Your task to perform on an android device: When is my next meeting? Image 0: 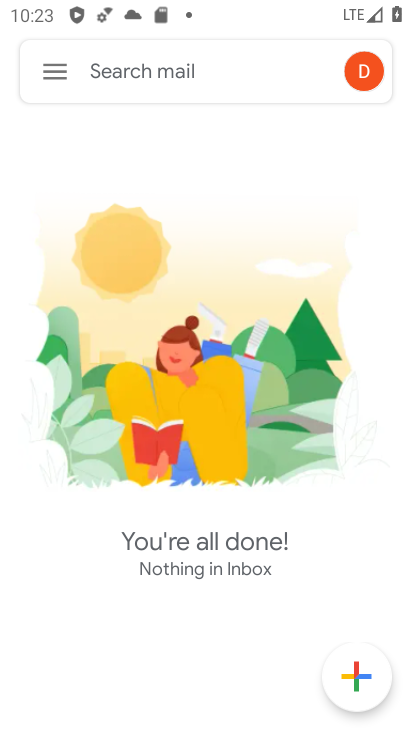
Step 0: press home button
Your task to perform on an android device: When is my next meeting? Image 1: 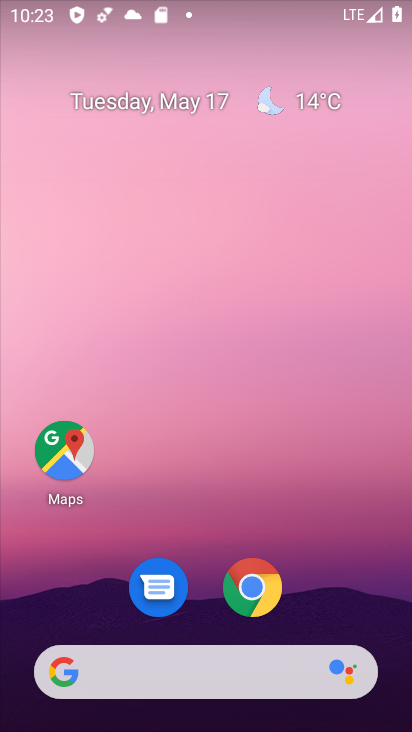
Step 1: drag from (277, 528) to (300, 5)
Your task to perform on an android device: When is my next meeting? Image 2: 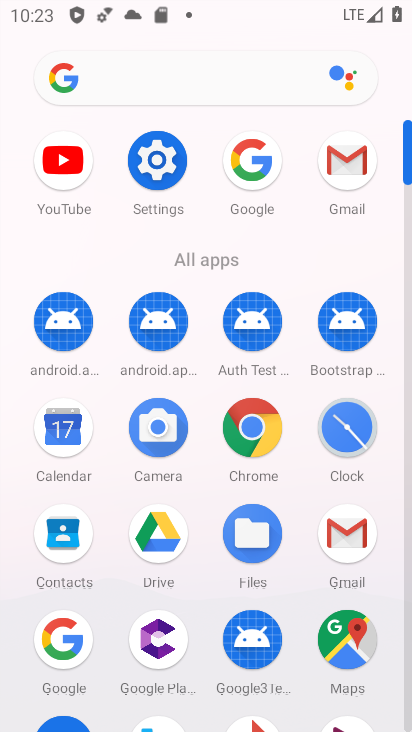
Step 2: click (61, 436)
Your task to perform on an android device: When is my next meeting? Image 3: 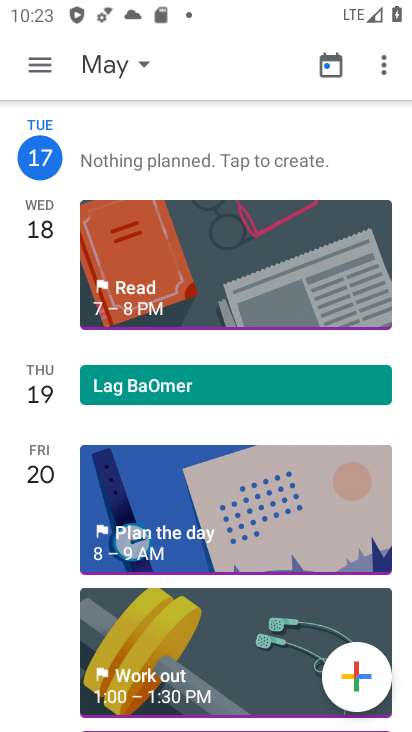
Step 3: drag from (254, 345) to (272, 255)
Your task to perform on an android device: When is my next meeting? Image 4: 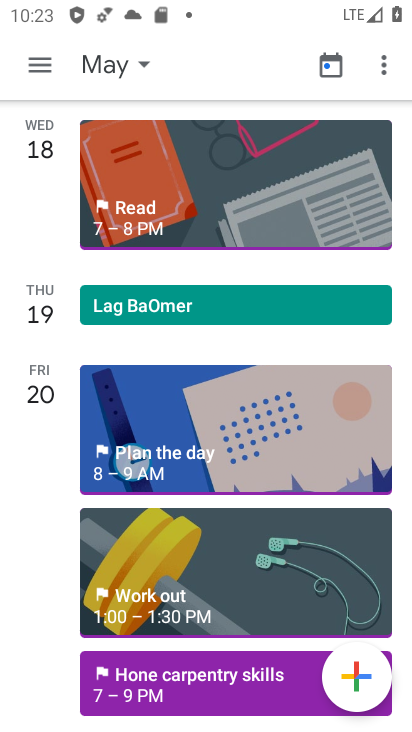
Step 4: click (250, 236)
Your task to perform on an android device: When is my next meeting? Image 5: 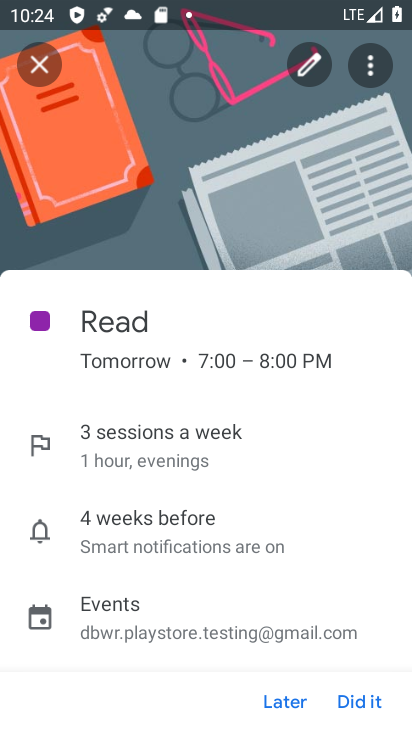
Step 5: task complete